Your task to perform on an android device: turn on airplane mode Image 0: 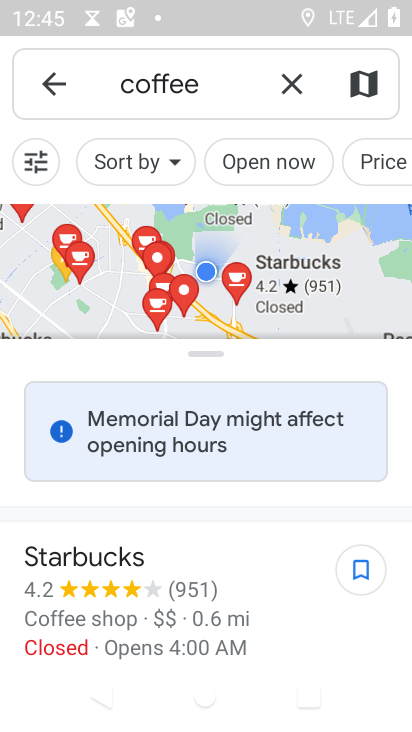
Step 0: press home button
Your task to perform on an android device: turn on airplane mode Image 1: 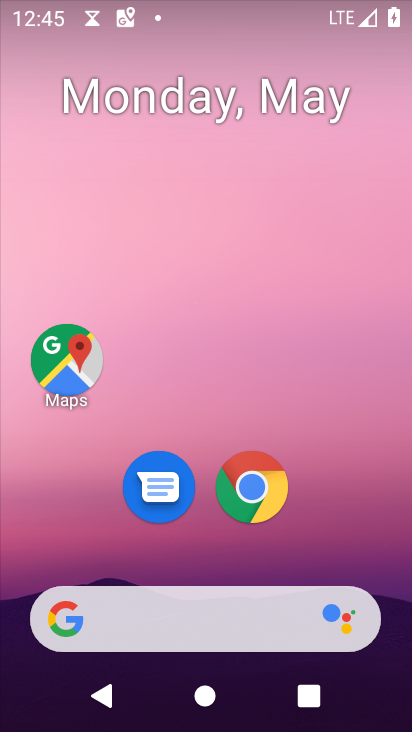
Step 1: drag from (200, 560) to (173, 11)
Your task to perform on an android device: turn on airplane mode Image 2: 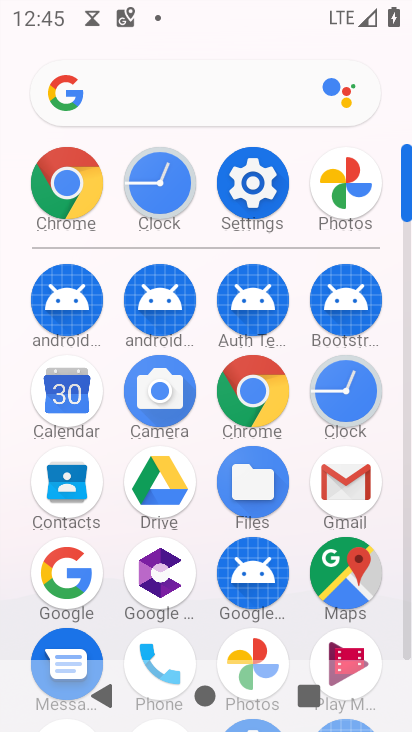
Step 2: click (261, 179)
Your task to perform on an android device: turn on airplane mode Image 3: 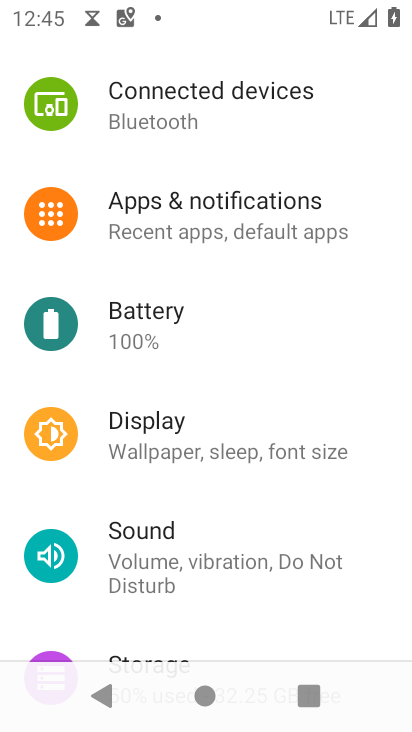
Step 3: drag from (211, 215) to (233, 538)
Your task to perform on an android device: turn on airplane mode Image 4: 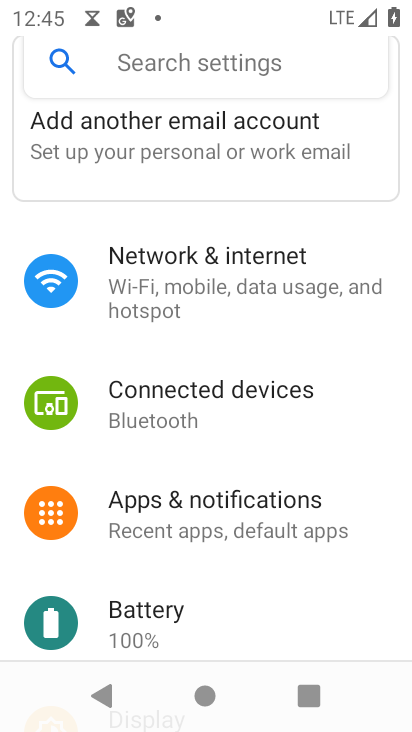
Step 4: click (206, 274)
Your task to perform on an android device: turn on airplane mode Image 5: 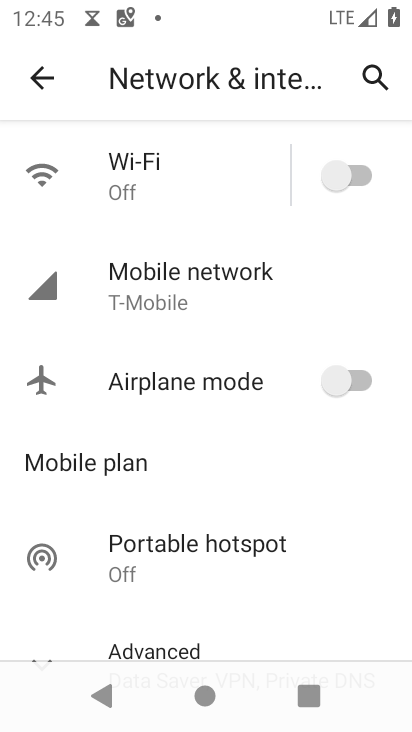
Step 5: click (357, 382)
Your task to perform on an android device: turn on airplane mode Image 6: 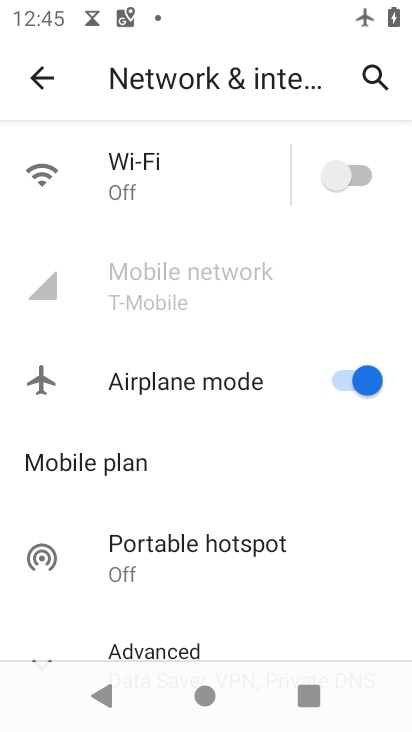
Step 6: task complete